Your task to perform on an android device: stop showing notifications on the lock screen Image 0: 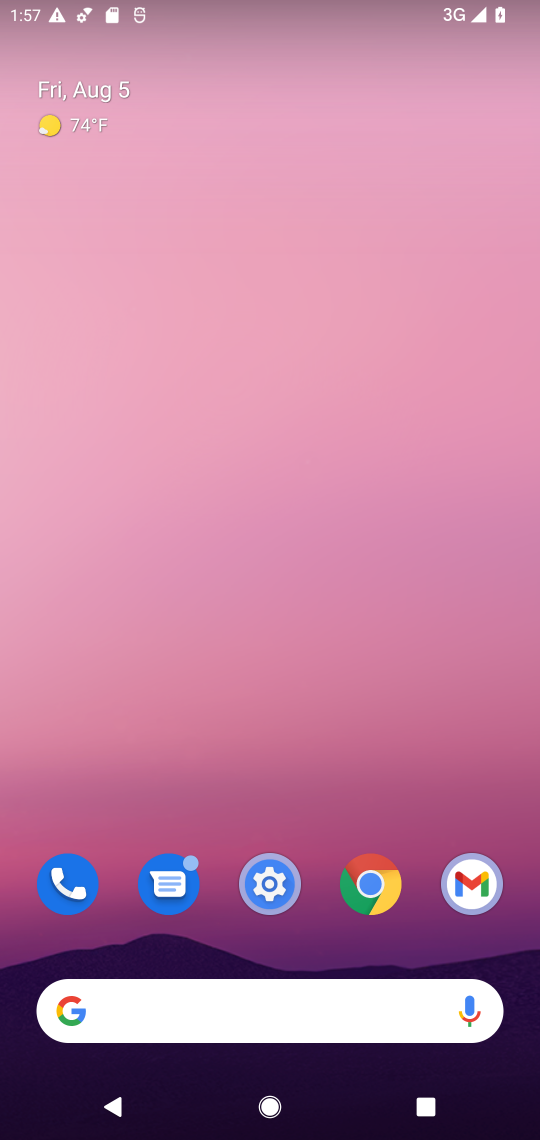
Step 0: drag from (430, 772) to (184, 9)
Your task to perform on an android device: stop showing notifications on the lock screen Image 1: 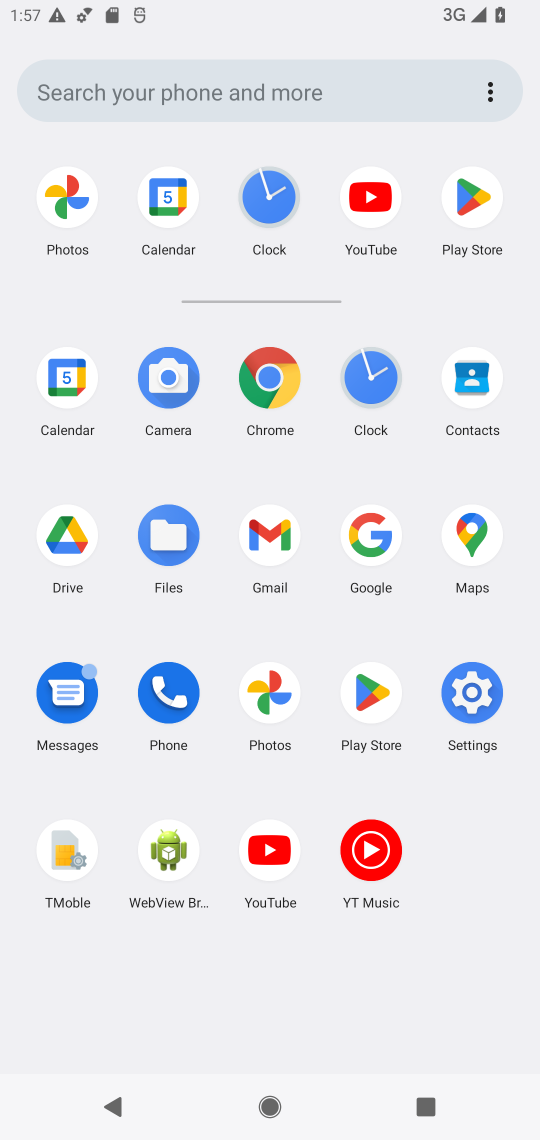
Step 1: click (489, 697)
Your task to perform on an android device: stop showing notifications on the lock screen Image 2: 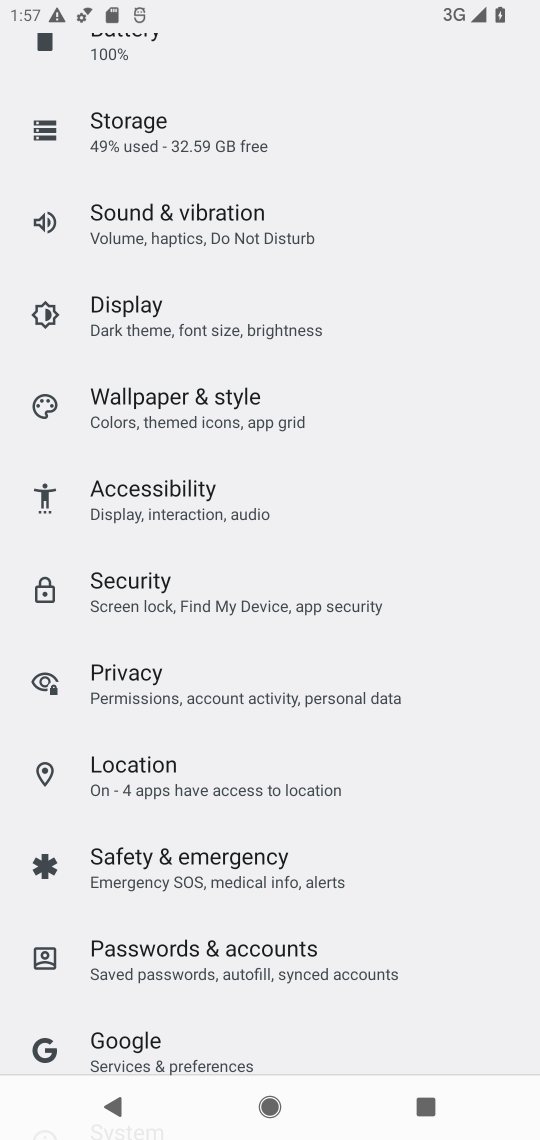
Step 2: drag from (218, 173) to (324, 1020)
Your task to perform on an android device: stop showing notifications on the lock screen Image 3: 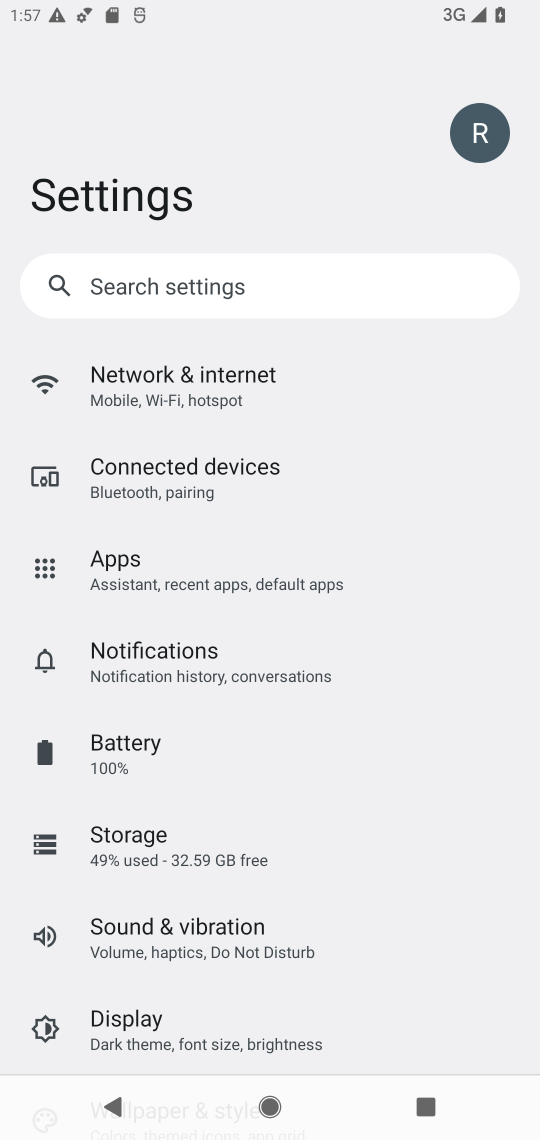
Step 3: click (157, 637)
Your task to perform on an android device: stop showing notifications on the lock screen Image 4: 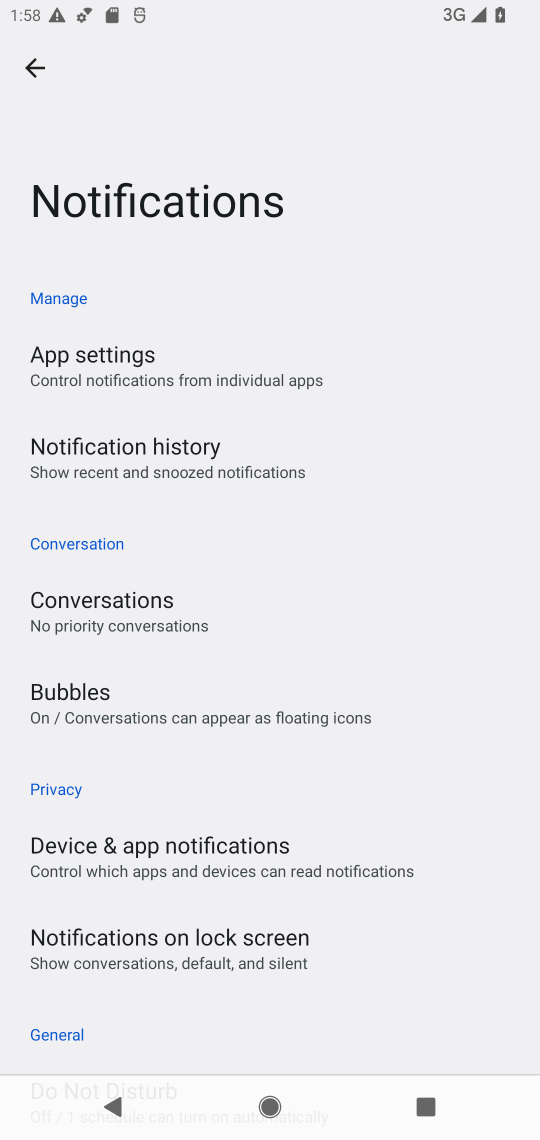
Step 4: click (165, 968)
Your task to perform on an android device: stop showing notifications on the lock screen Image 5: 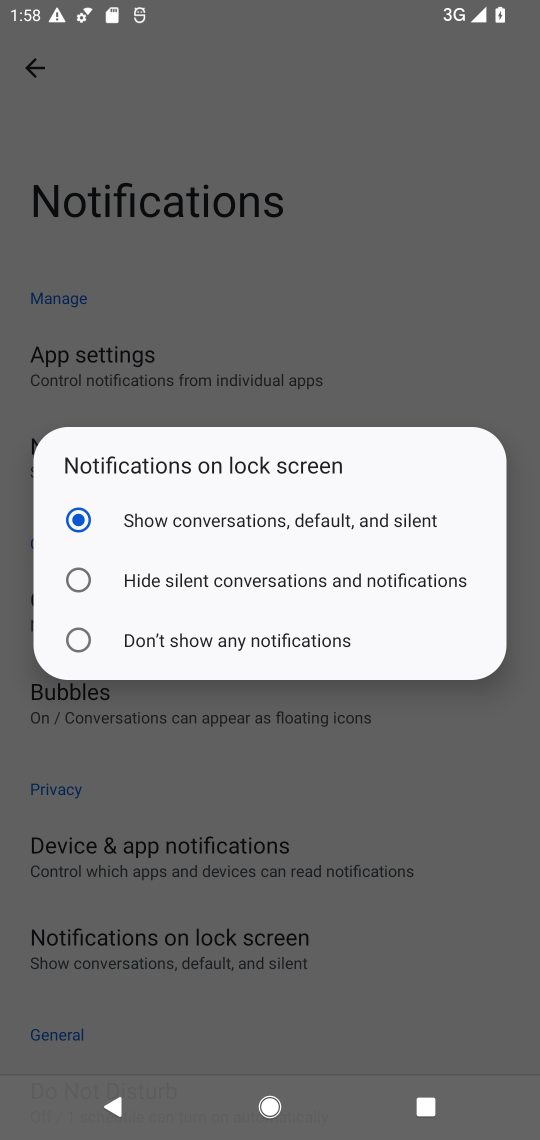
Step 5: click (91, 650)
Your task to perform on an android device: stop showing notifications on the lock screen Image 6: 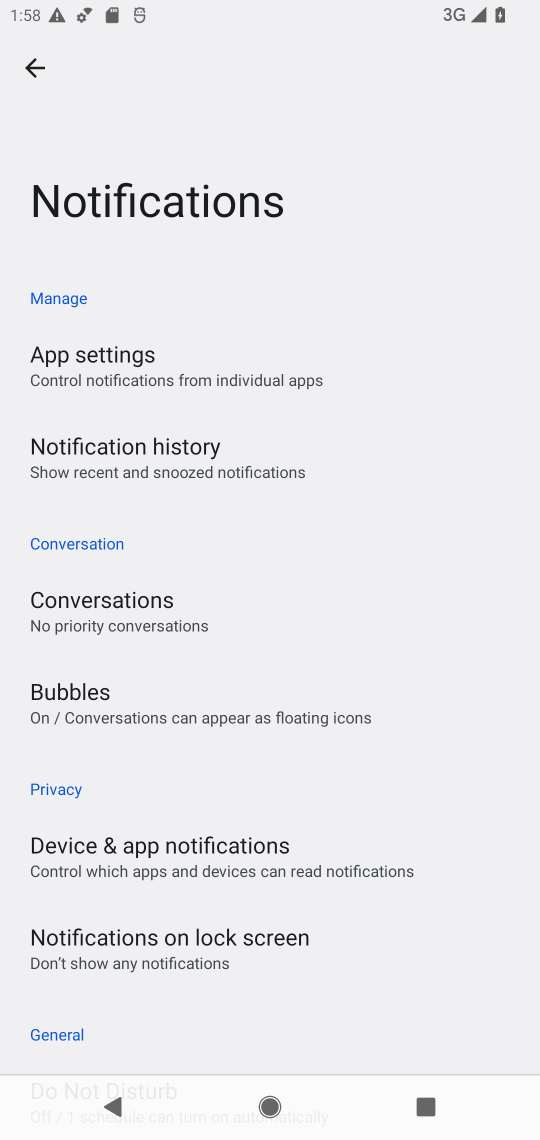
Step 6: task complete